Your task to perform on an android device: install app "eBay: The shopping marketplace" Image 0: 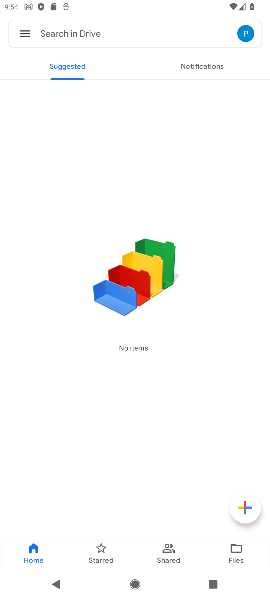
Step 0: press home button
Your task to perform on an android device: install app "eBay: The shopping marketplace" Image 1: 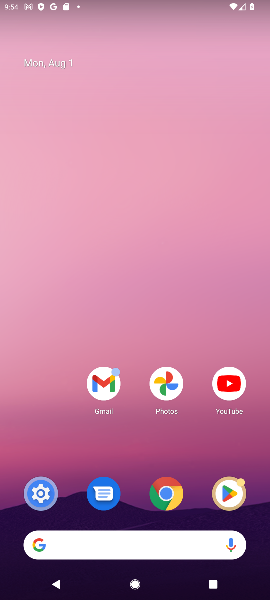
Step 1: drag from (60, 521) to (106, 0)
Your task to perform on an android device: install app "eBay: The shopping marketplace" Image 2: 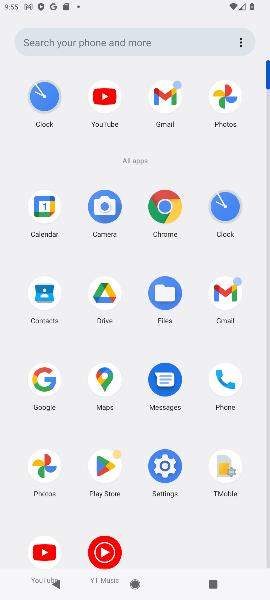
Step 2: click (82, 47)
Your task to perform on an android device: install app "eBay: The shopping marketplace" Image 3: 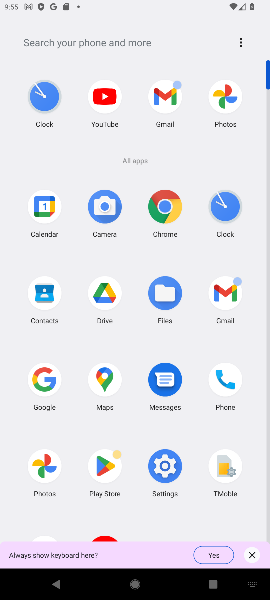
Step 3: type "ebay"
Your task to perform on an android device: install app "eBay: The shopping marketplace" Image 4: 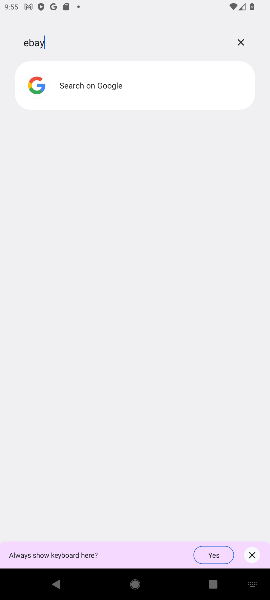
Step 4: task complete